Your task to perform on an android device: Open Yahoo.com Image 0: 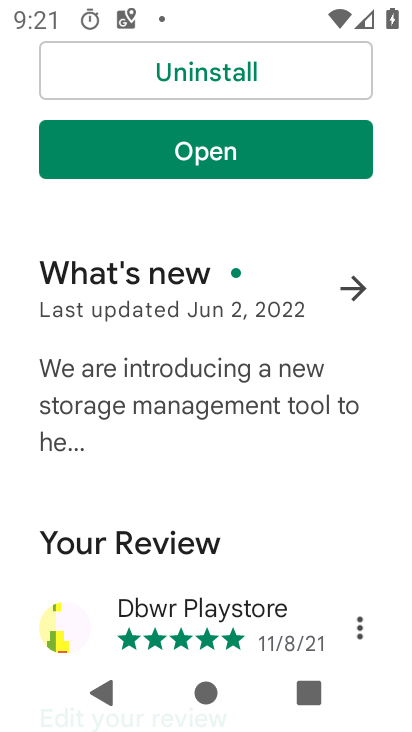
Step 0: drag from (266, 561) to (311, 361)
Your task to perform on an android device: Open Yahoo.com Image 1: 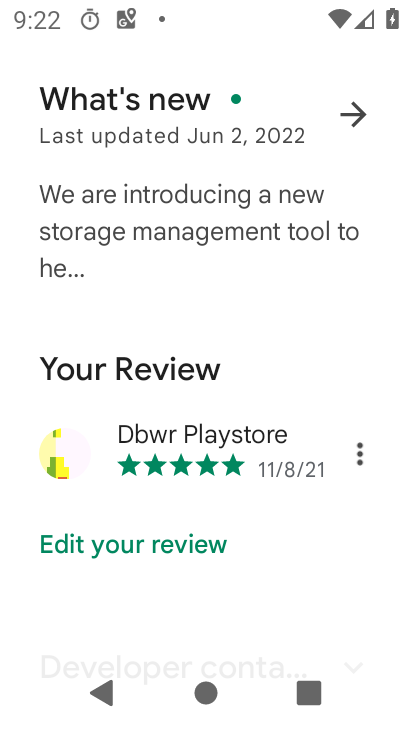
Step 1: drag from (269, 264) to (288, 586)
Your task to perform on an android device: Open Yahoo.com Image 2: 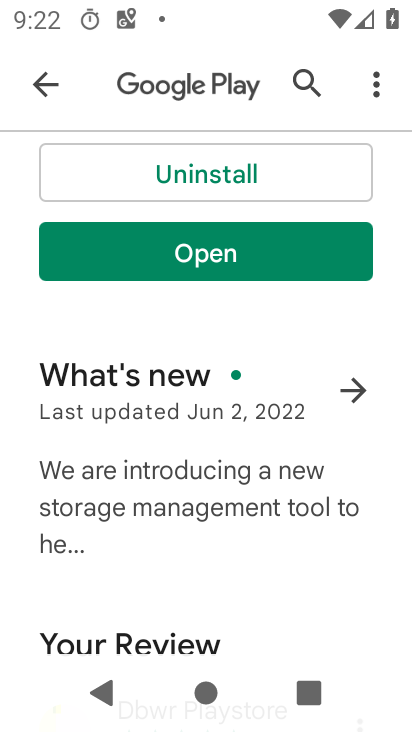
Step 2: drag from (221, 356) to (289, 688)
Your task to perform on an android device: Open Yahoo.com Image 3: 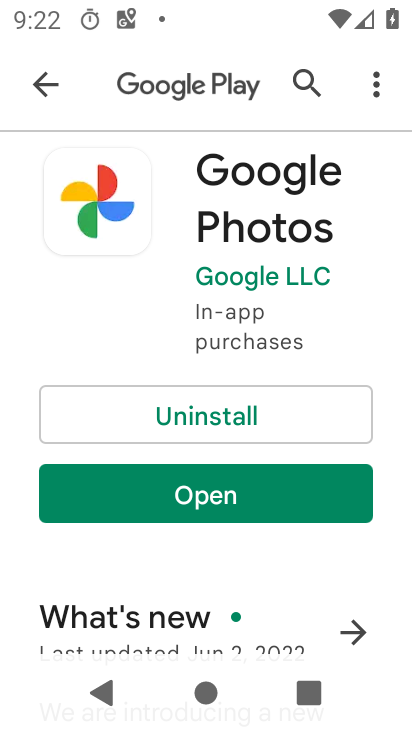
Step 3: drag from (198, 256) to (253, 456)
Your task to perform on an android device: Open Yahoo.com Image 4: 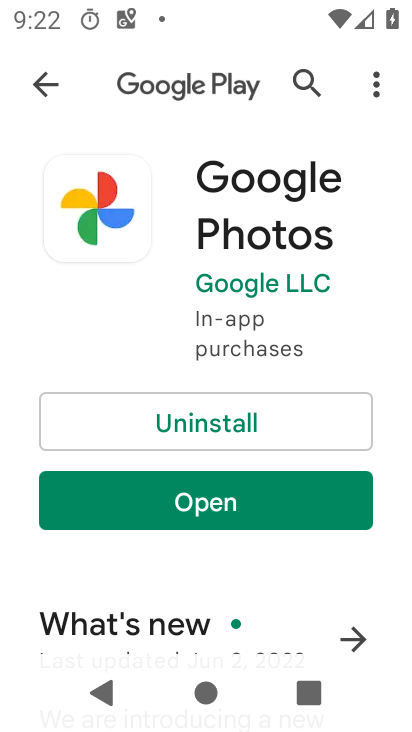
Step 4: drag from (240, 600) to (296, 274)
Your task to perform on an android device: Open Yahoo.com Image 5: 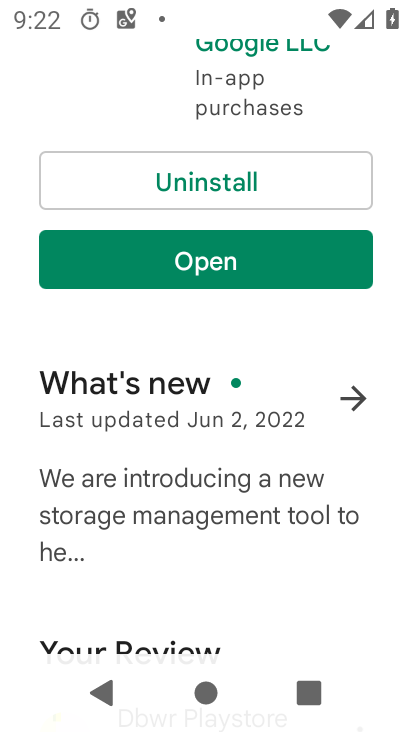
Step 5: drag from (214, 497) to (304, 160)
Your task to perform on an android device: Open Yahoo.com Image 6: 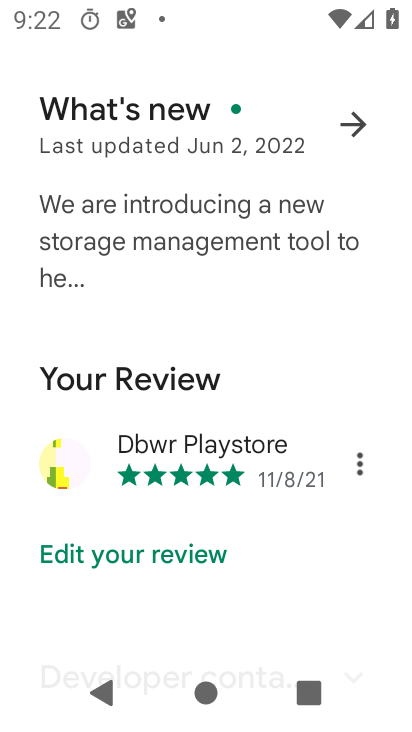
Step 6: drag from (313, 157) to (403, 632)
Your task to perform on an android device: Open Yahoo.com Image 7: 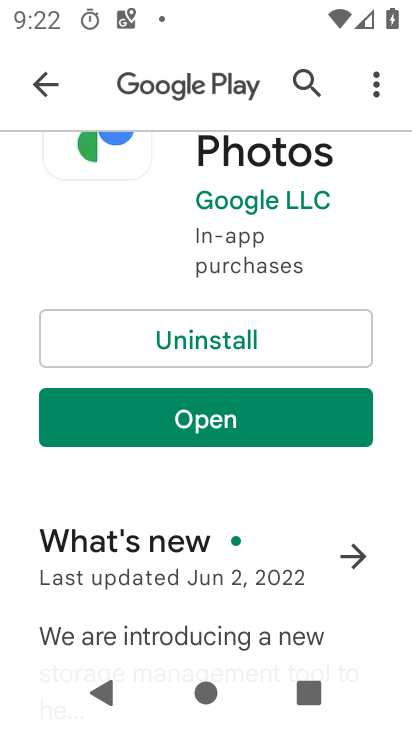
Step 7: drag from (254, 557) to (275, 312)
Your task to perform on an android device: Open Yahoo.com Image 8: 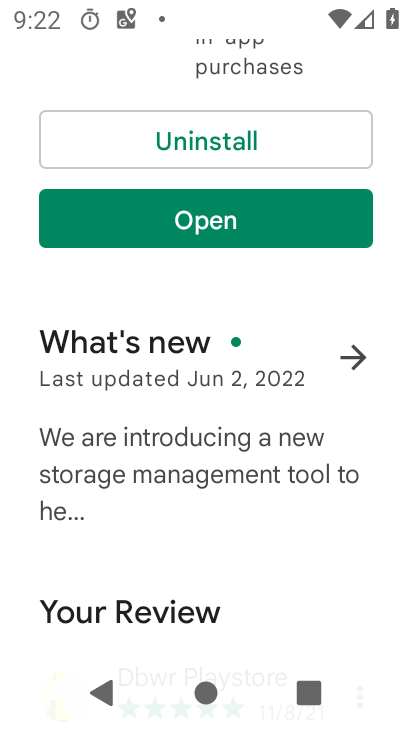
Step 8: drag from (228, 210) to (287, 730)
Your task to perform on an android device: Open Yahoo.com Image 9: 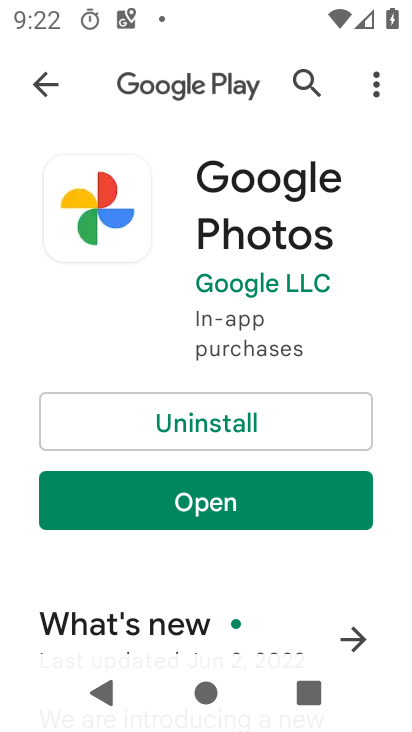
Step 9: press home button
Your task to perform on an android device: Open Yahoo.com Image 10: 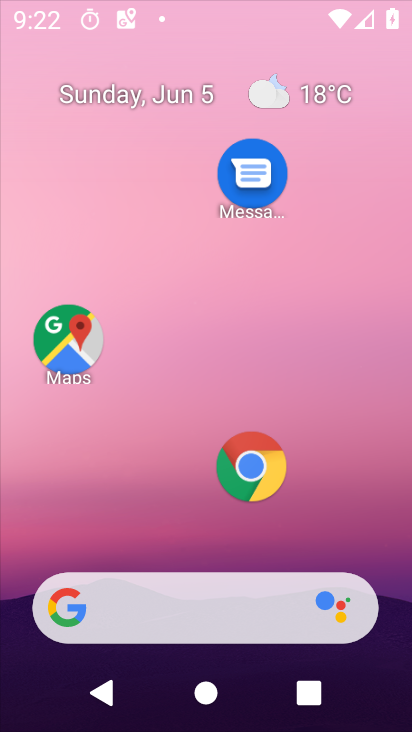
Step 10: drag from (131, 598) to (257, 29)
Your task to perform on an android device: Open Yahoo.com Image 11: 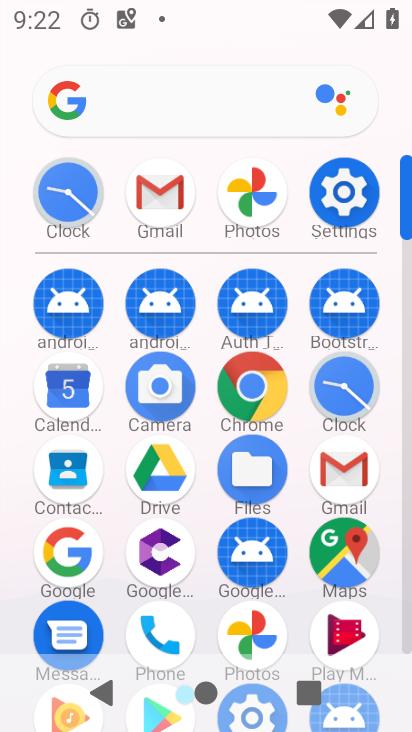
Step 11: click (178, 106)
Your task to perform on an android device: Open Yahoo.com Image 12: 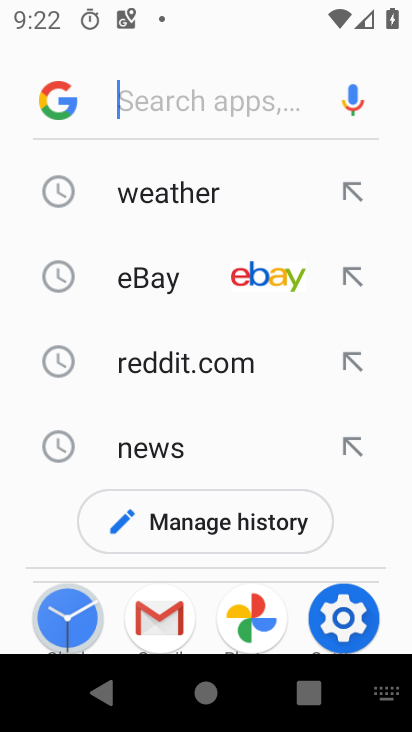
Step 12: drag from (241, 368) to (287, 95)
Your task to perform on an android device: Open Yahoo.com Image 13: 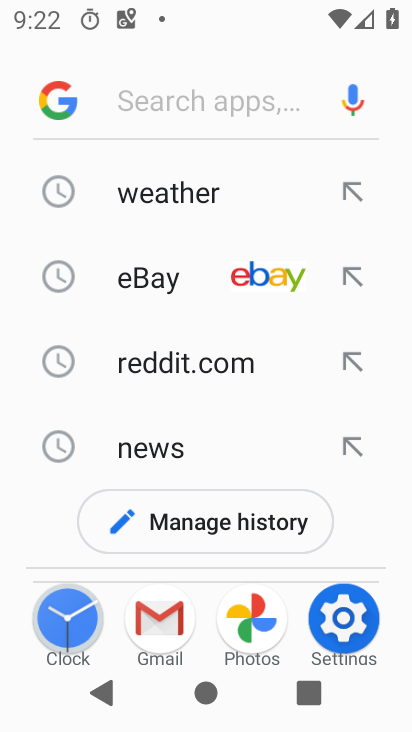
Step 13: drag from (169, 436) to (275, 14)
Your task to perform on an android device: Open Yahoo.com Image 14: 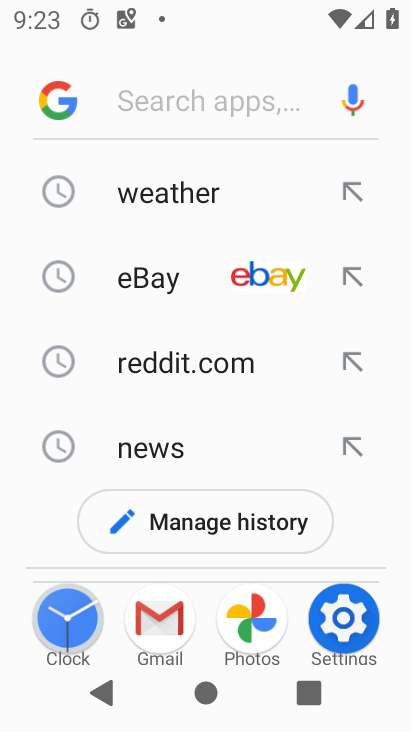
Step 14: type "yahoo"
Your task to perform on an android device: Open Yahoo.com Image 15: 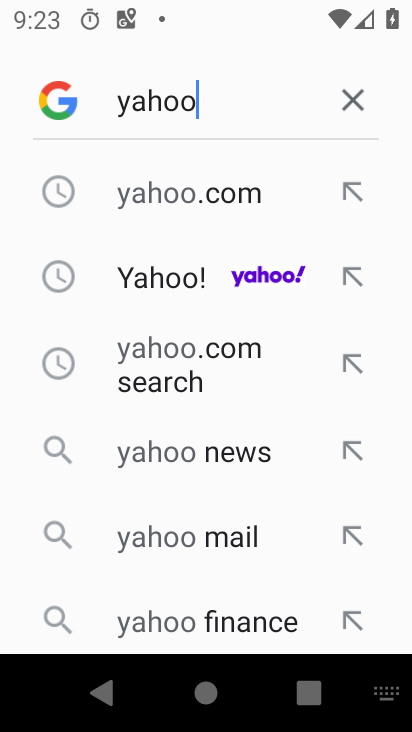
Step 15: click (156, 276)
Your task to perform on an android device: Open Yahoo.com Image 16: 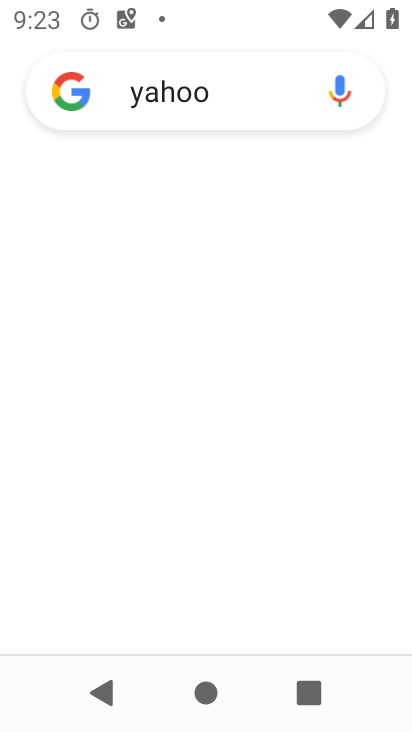
Step 16: task complete